Your task to perform on an android device: Open the phone app and click the voicemail tab. Image 0: 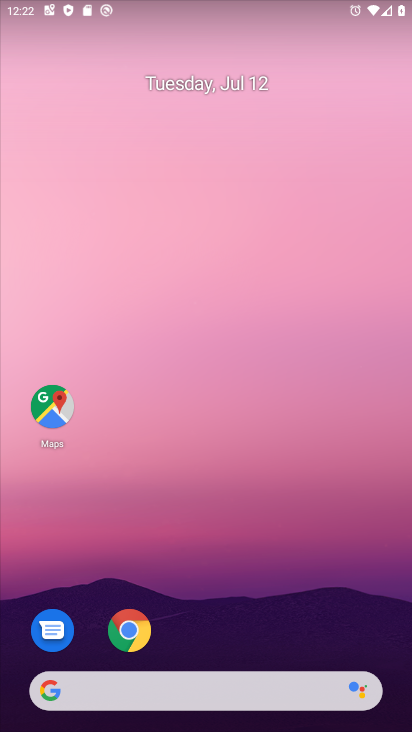
Step 0: press home button
Your task to perform on an android device: Open the phone app and click the voicemail tab. Image 1: 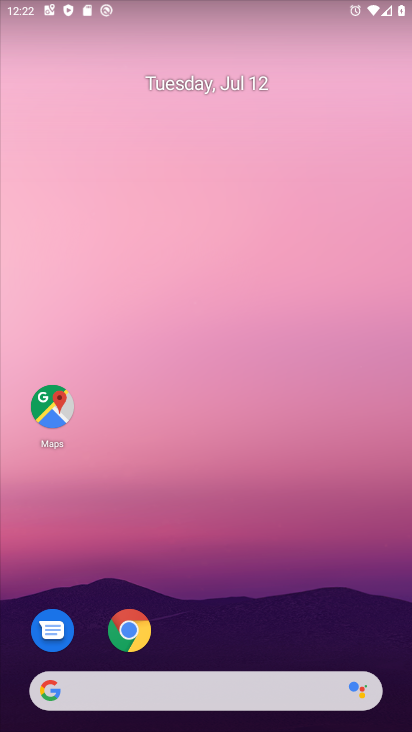
Step 1: drag from (228, 696) to (288, 2)
Your task to perform on an android device: Open the phone app and click the voicemail tab. Image 2: 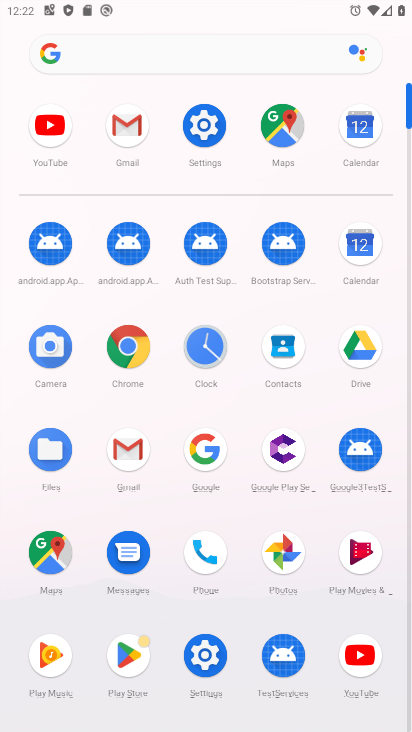
Step 2: click (201, 553)
Your task to perform on an android device: Open the phone app and click the voicemail tab. Image 3: 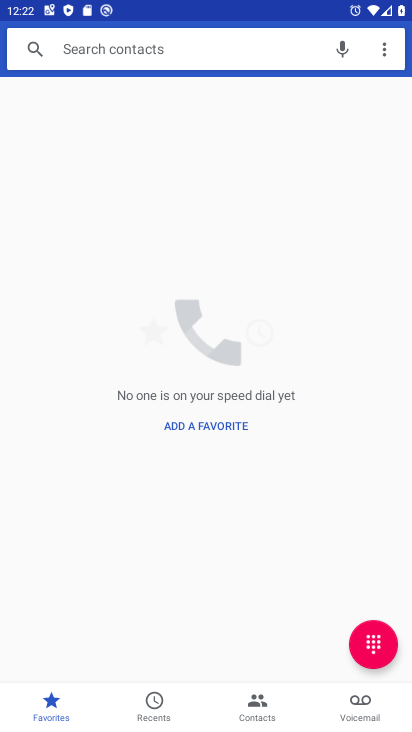
Step 3: click (360, 700)
Your task to perform on an android device: Open the phone app and click the voicemail tab. Image 4: 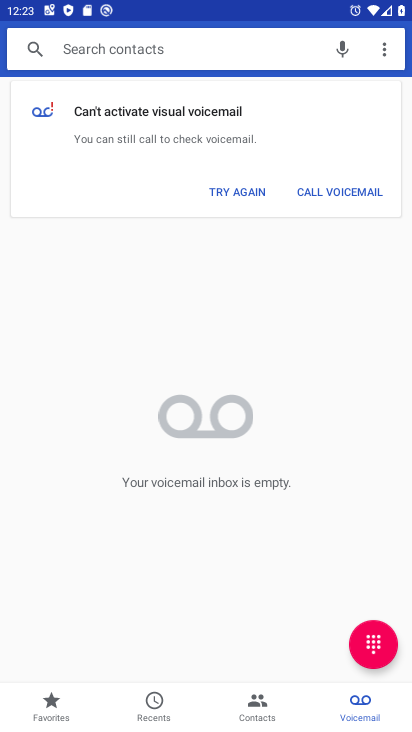
Step 4: task complete